Your task to perform on an android device: When is my next appointment? Image 0: 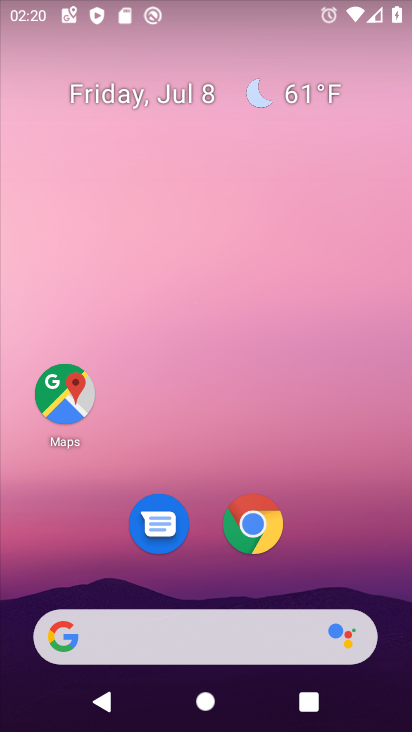
Step 0: drag from (348, 516) to (265, 37)
Your task to perform on an android device: When is my next appointment? Image 1: 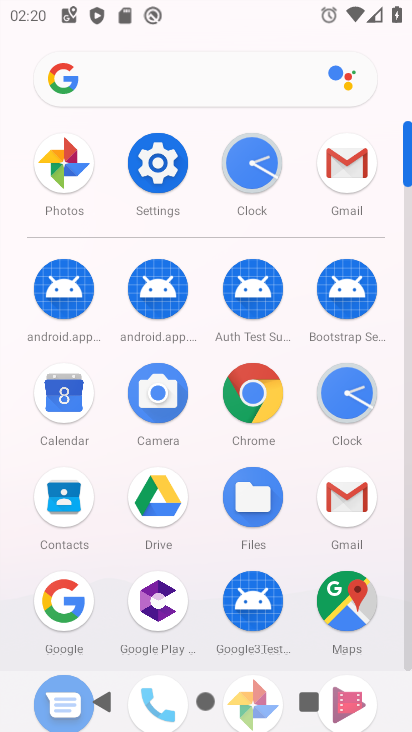
Step 1: click (73, 397)
Your task to perform on an android device: When is my next appointment? Image 2: 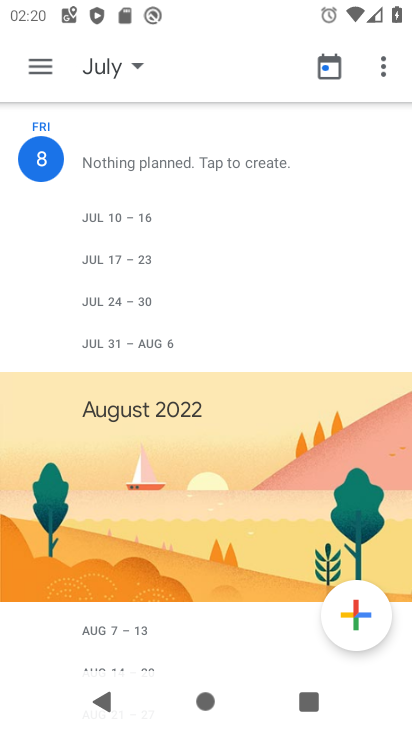
Step 2: task complete